Your task to perform on an android device: Find coffee shops on Maps Image 0: 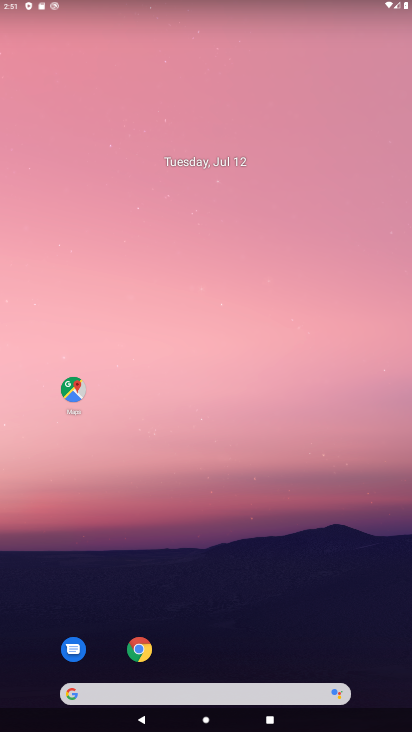
Step 0: drag from (220, 677) to (354, 83)
Your task to perform on an android device: Find coffee shops on Maps Image 1: 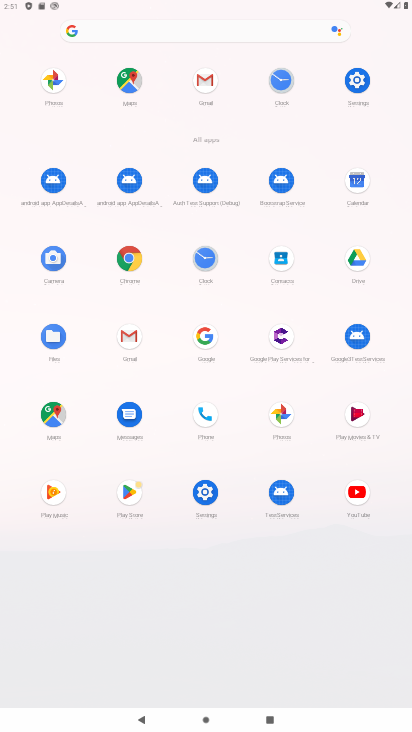
Step 1: click (52, 420)
Your task to perform on an android device: Find coffee shops on Maps Image 2: 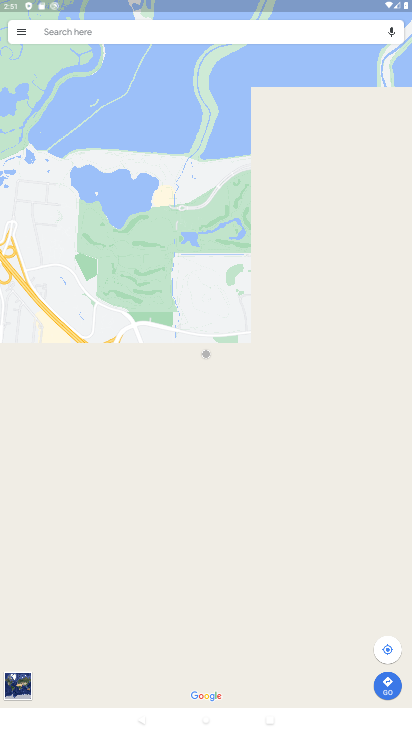
Step 2: click (69, 34)
Your task to perform on an android device: Find coffee shops on Maps Image 3: 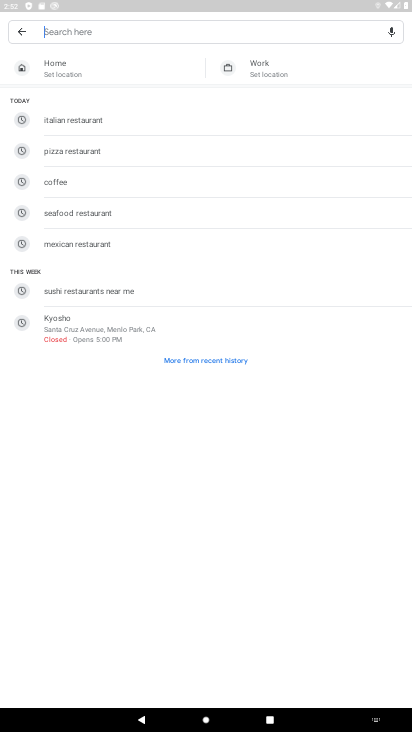
Step 3: type "Coffee shops"
Your task to perform on an android device: Find coffee shops on Maps Image 4: 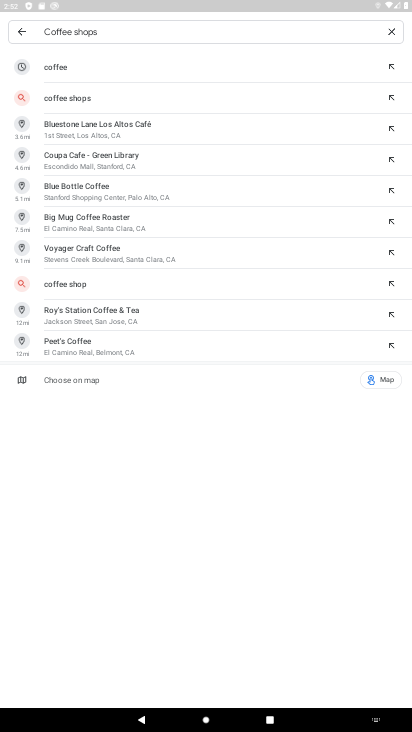
Step 4: click (73, 96)
Your task to perform on an android device: Find coffee shops on Maps Image 5: 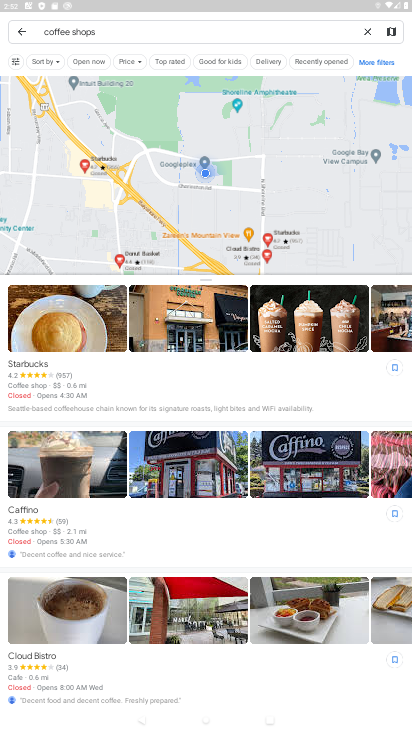
Step 5: task complete